Your task to perform on an android device: set the stopwatch Image 0: 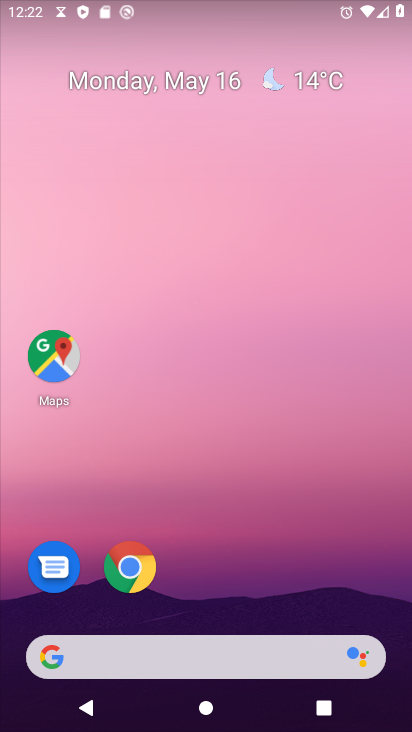
Step 0: drag from (271, 505) to (316, 63)
Your task to perform on an android device: set the stopwatch Image 1: 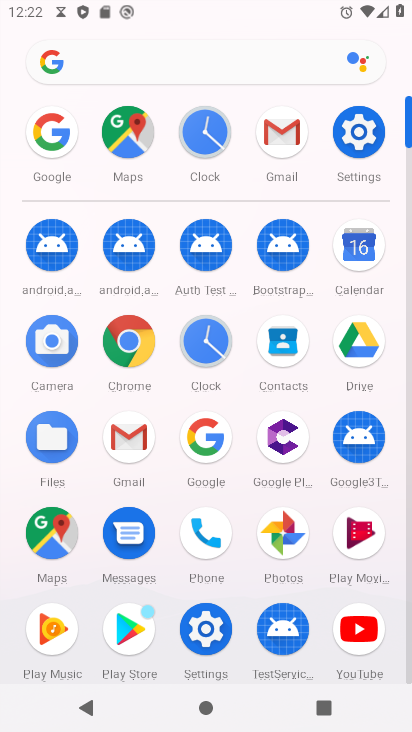
Step 1: click (192, 125)
Your task to perform on an android device: set the stopwatch Image 2: 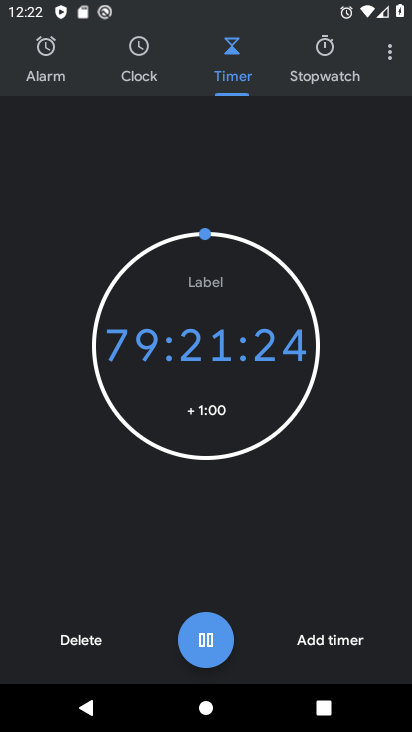
Step 2: click (309, 65)
Your task to perform on an android device: set the stopwatch Image 3: 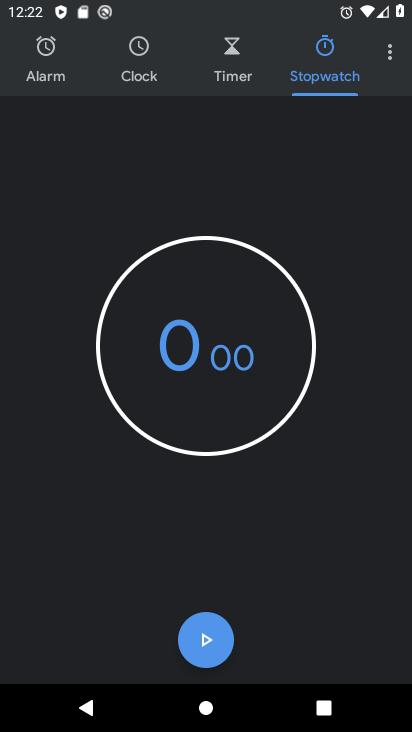
Step 3: click (206, 627)
Your task to perform on an android device: set the stopwatch Image 4: 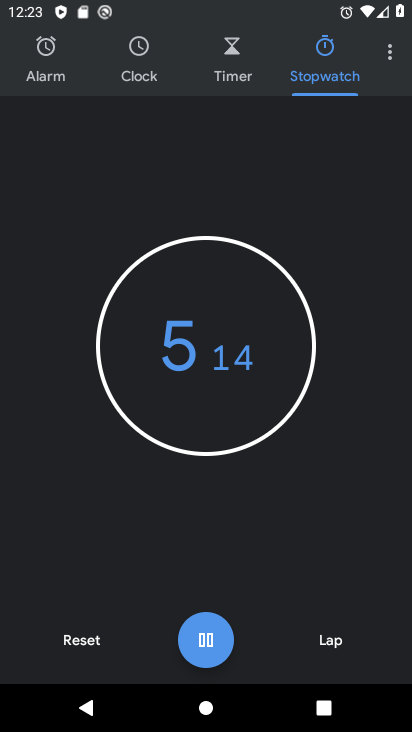
Step 4: task complete